Your task to perform on an android device: refresh tabs in the chrome app Image 0: 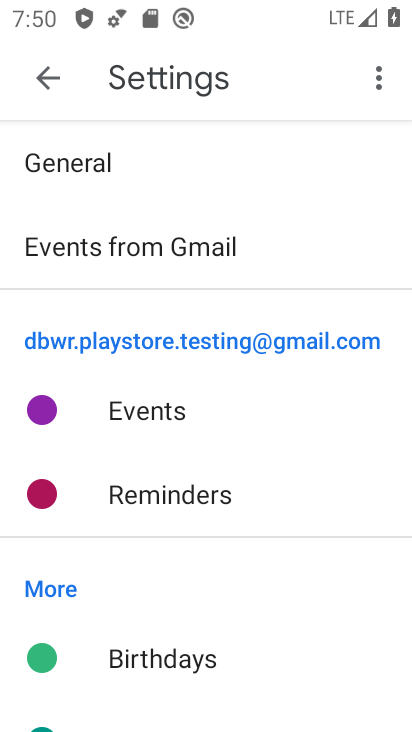
Step 0: press back button
Your task to perform on an android device: refresh tabs in the chrome app Image 1: 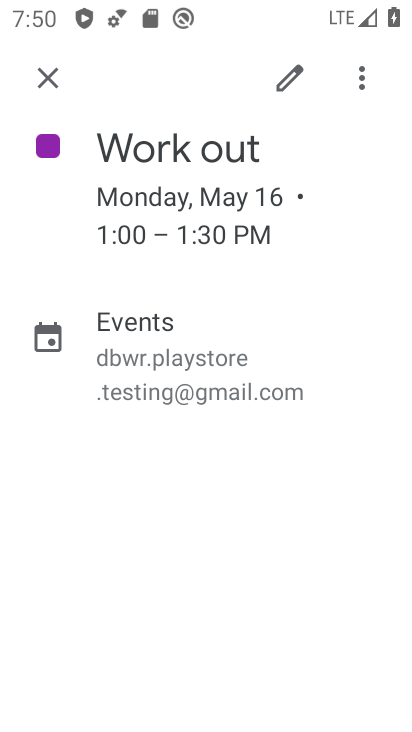
Step 1: press back button
Your task to perform on an android device: refresh tabs in the chrome app Image 2: 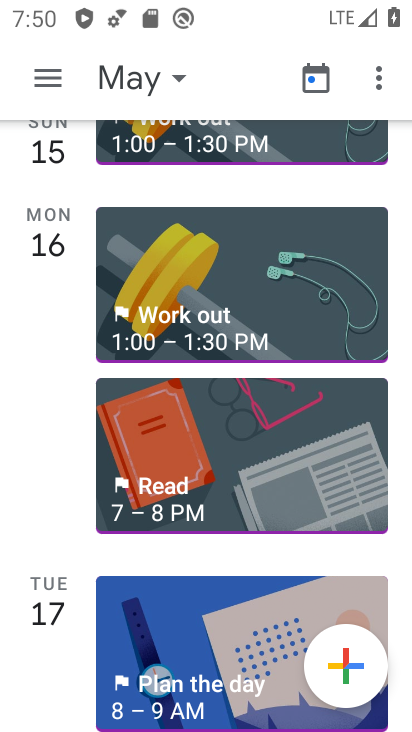
Step 2: press back button
Your task to perform on an android device: refresh tabs in the chrome app Image 3: 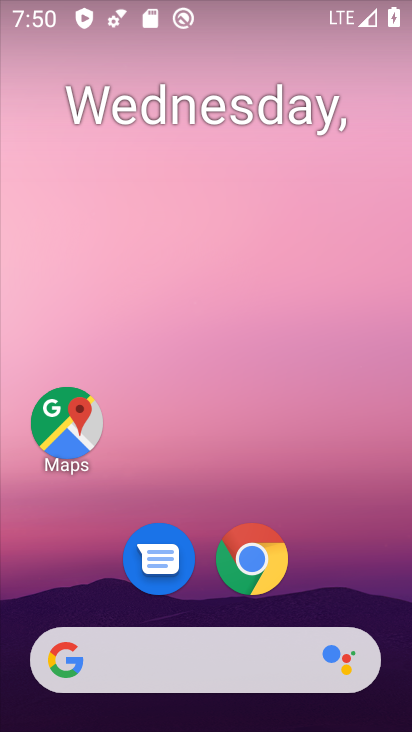
Step 3: click (235, 571)
Your task to perform on an android device: refresh tabs in the chrome app Image 4: 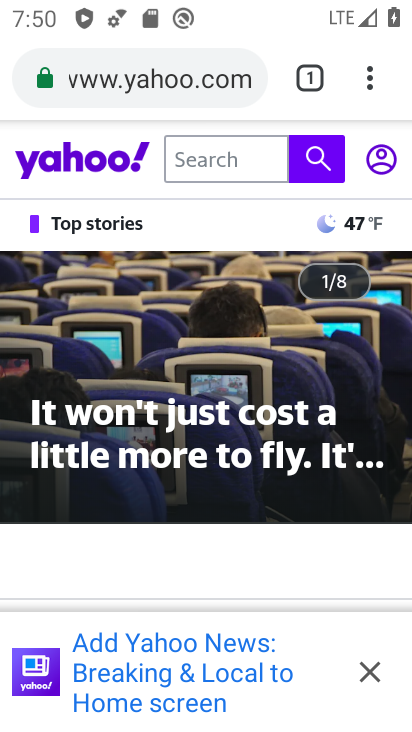
Step 4: click (371, 72)
Your task to perform on an android device: refresh tabs in the chrome app Image 5: 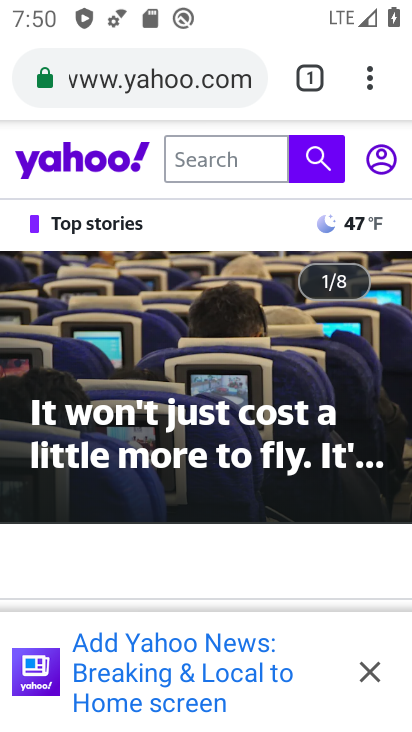
Step 5: task complete